Your task to perform on an android device: Open Wikipedia Image 0: 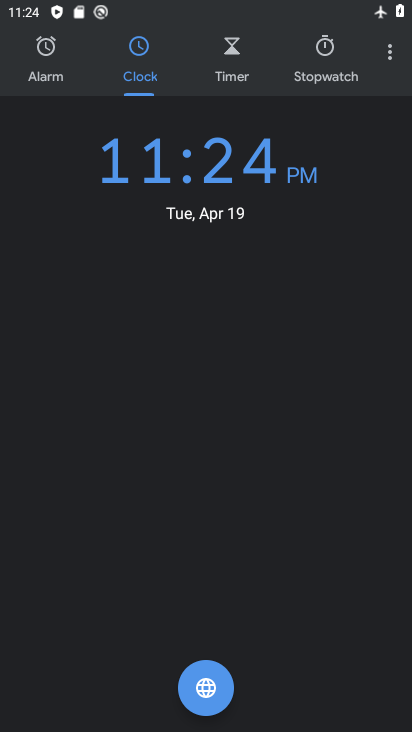
Step 0: press back button
Your task to perform on an android device: Open Wikipedia Image 1: 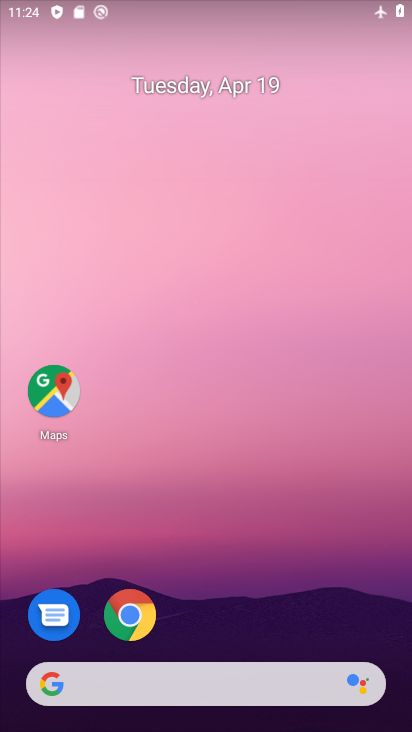
Step 1: drag from (157, 693) to (165, 10)
Your task to perform on an android device: Open Wikipedia Image 2: 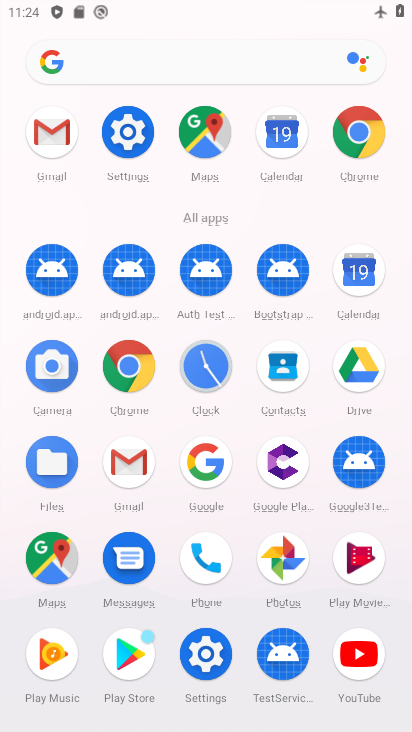
Step 2: click (357, 157)
Your task to perform on an android device: Open Wikipedia Image 3: 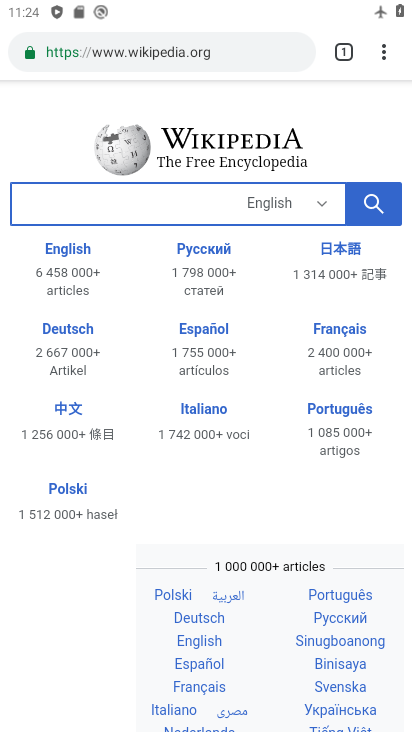
Step 3: task complete